Your task to perform on an android device: refresh tabs in the chrome app Image 0: 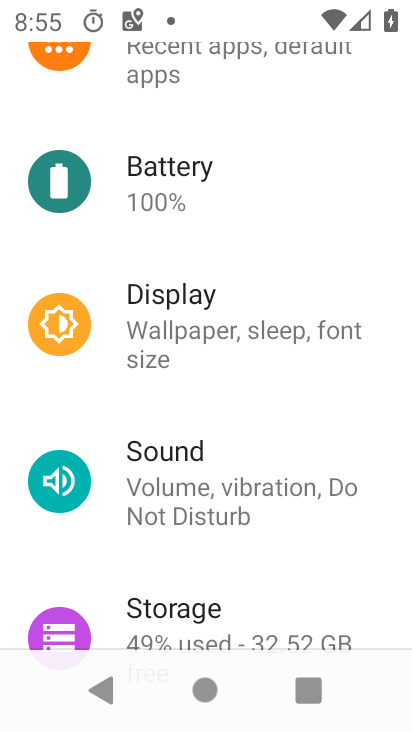
Step 0: press home button
Your task to perform on an android device: refresh tabs in the chrome app Image 1: 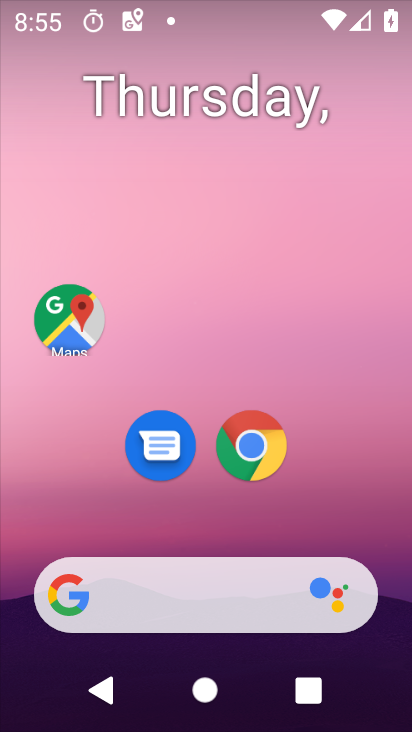
Step 1: click (237, 454)
Your task to perform on an android device: refresh tabs in the chrome app Image 2: 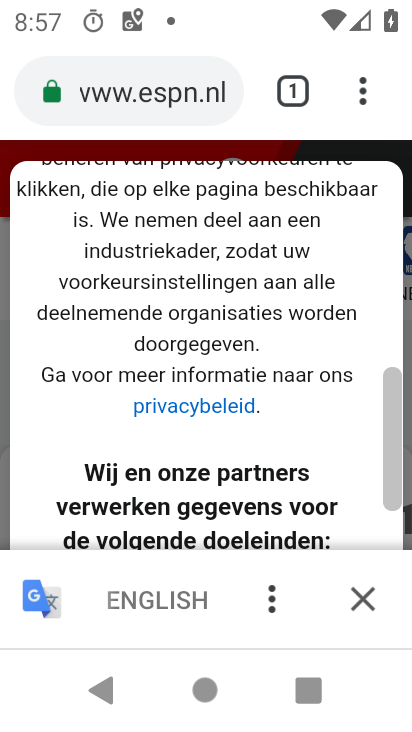
Step 2: click (358, 90)
Your task to perform on an android device: refresh tabs in the chrome app Image 3: 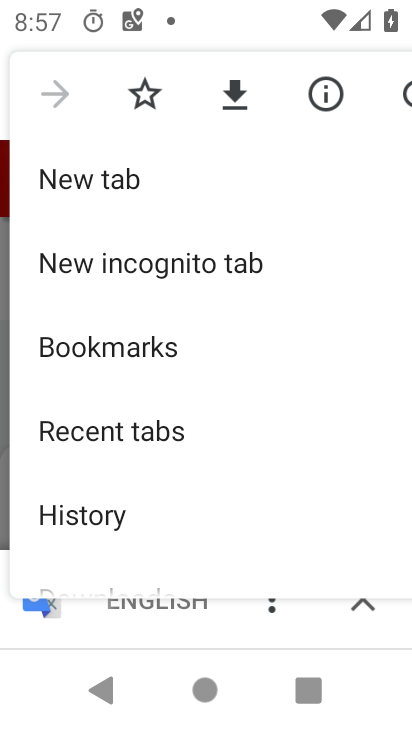
Step 3: click (396, 91)
Your task to perform on an android device: refresh tabs in the chrome app Image 4: 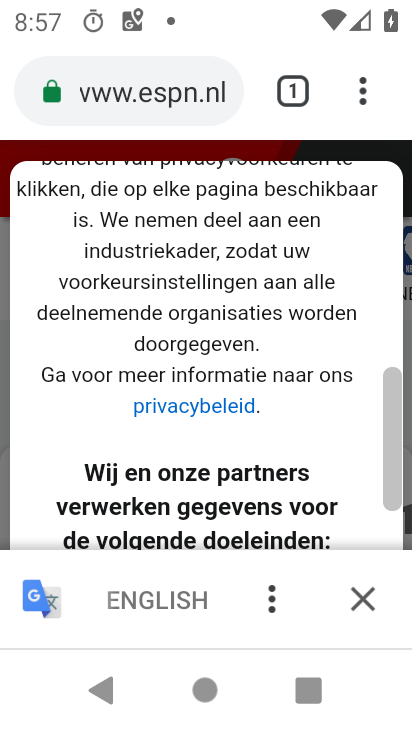
Step 4: task complete